Your task to perform on an android device: change alarm snooze length Image 0: 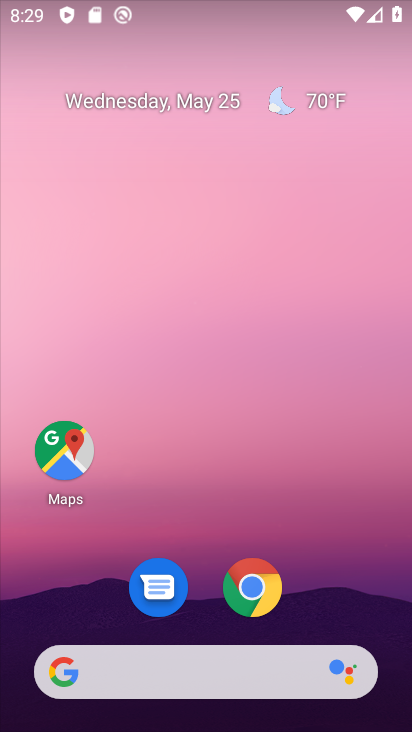
Step 0: drag from (193, 625) to (272, 14)
Your task to perform on an android device: change alarm snooze length Image 1: 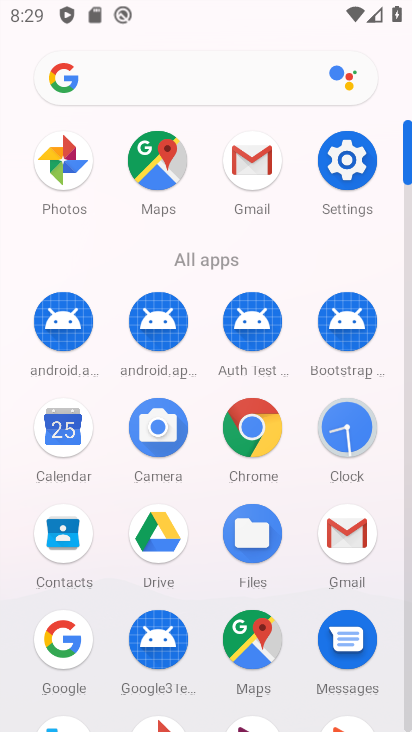
Step 1: click (346, 431)
Your task to perform on an android device: change alarm snooze length Image 2: 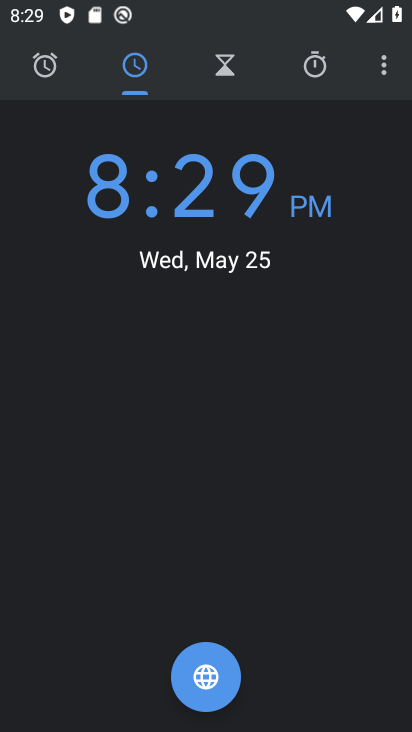
Step 2: click (386, 75)
Your task to perform on an android device: change alarm snooze length Image 3: 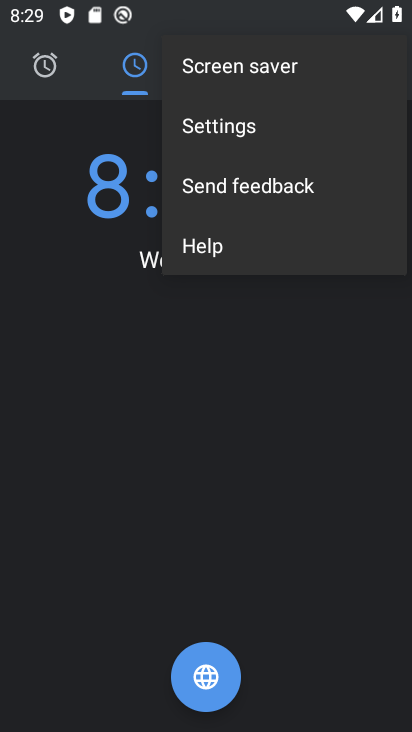
Step 3: click (237, 126)
Your task to perform on an android device: change alarm snooze length Image 4: 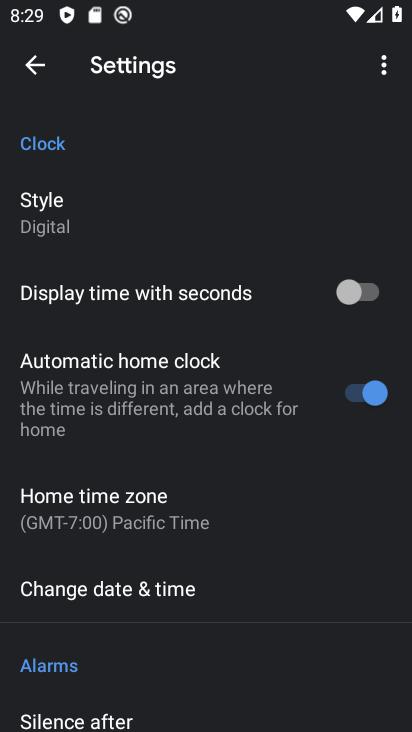
Step 4: drag from (138, 505) to (219, 124)
Your task to perform on an android device: change alarm snooze length Image 5: 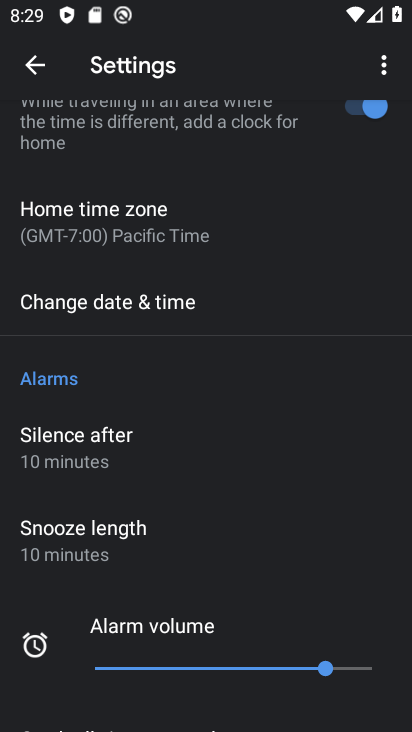
Step 5: click (135, 545)
Your task to perform on an android device: change alarm snooze length Image 6: 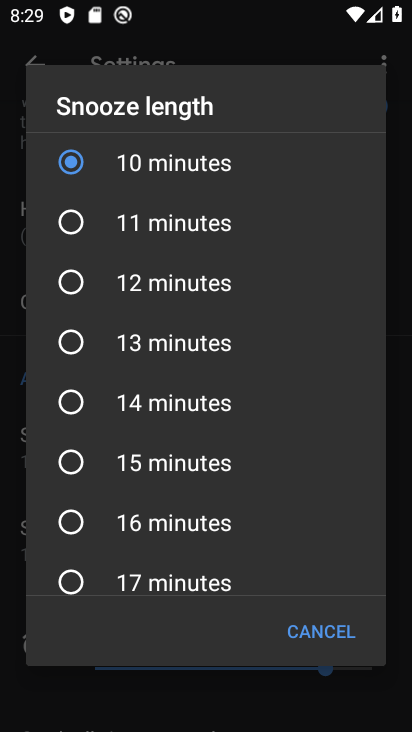
Step 6: click (146, 466)
Your task to perform on an android device: change alarm snooze length Image 7: 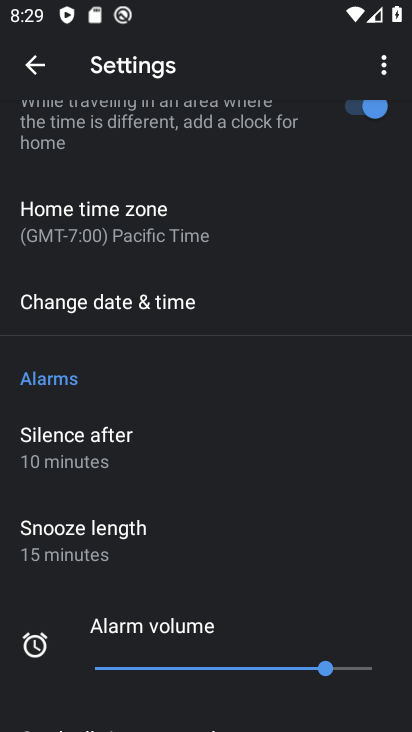
Step 7: task complete